Your task to perform on an android device: Search for seafood restaurants on Google Maps Image 0: 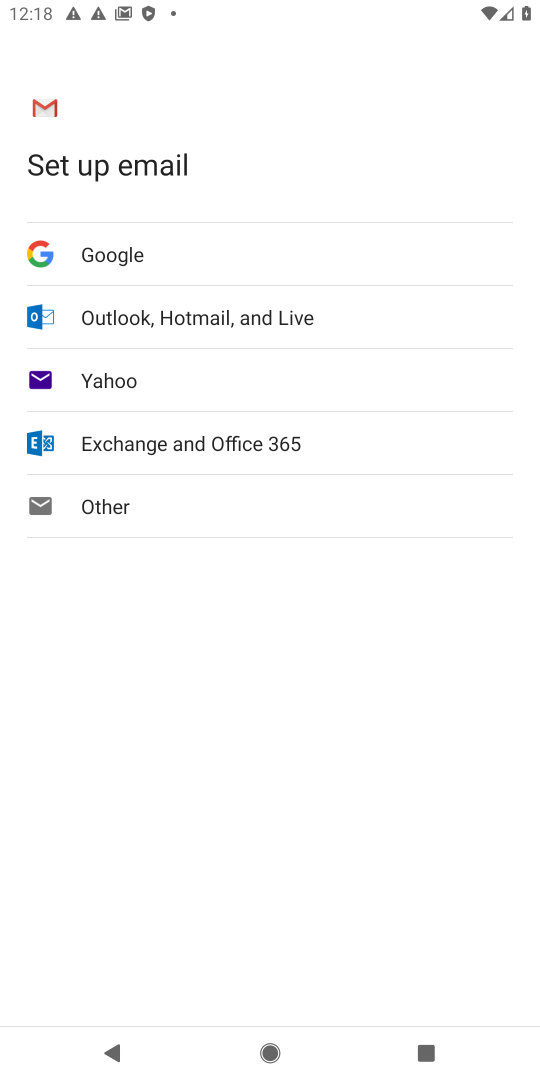
Step 0: press back button
Your task to perform on an android device: Search for seafood restaurants on Google Maps Image 1: 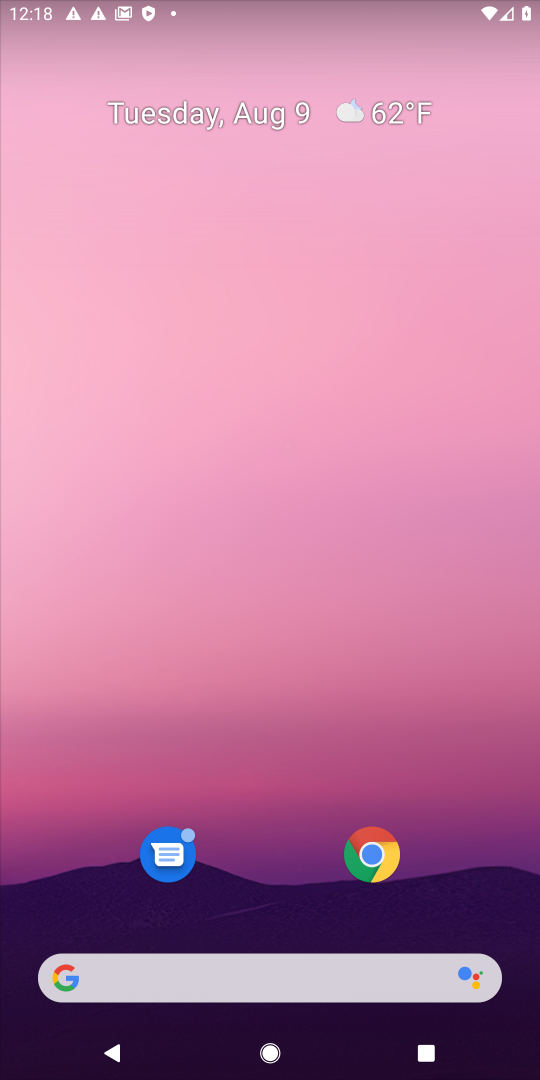
Step 1: drag from (266, 911) to (427, 2)
Your task to perform on an android device: Search for seafood restaurants on Google Maps Image 2: 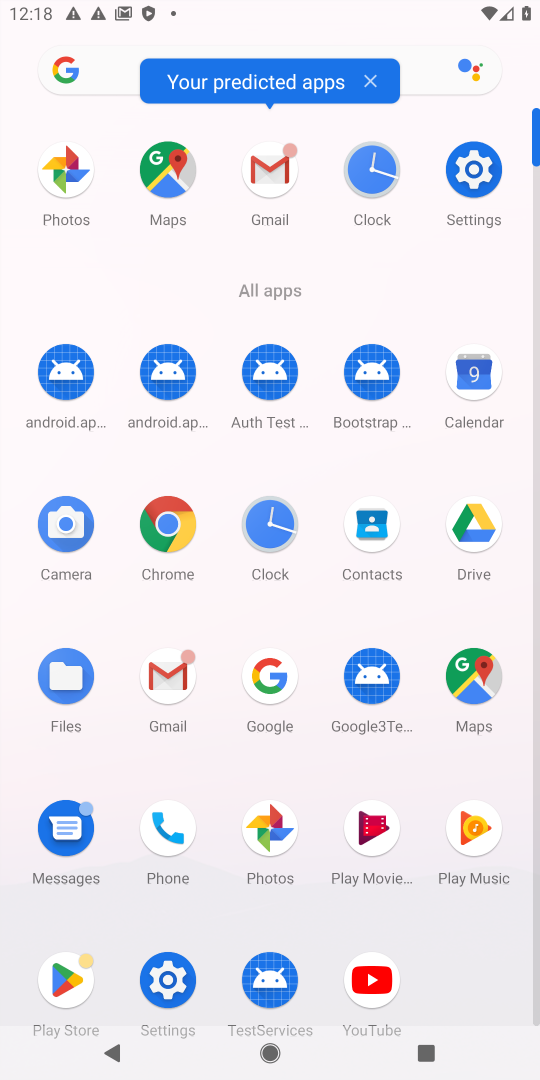
Step 2: click (167, 169)
Your task to perform on an android device: Search for seafood restaurants on Google Maps Image 3: 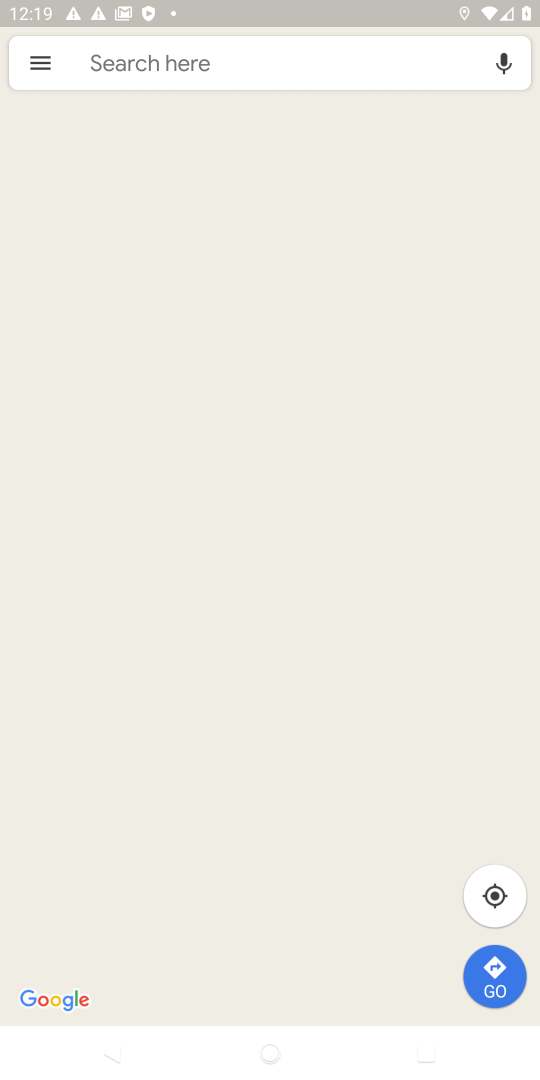
Step 3: click (205, 78)
Your task to perform on an android device: Search for seafood restaurants on Google Maps Image 4: 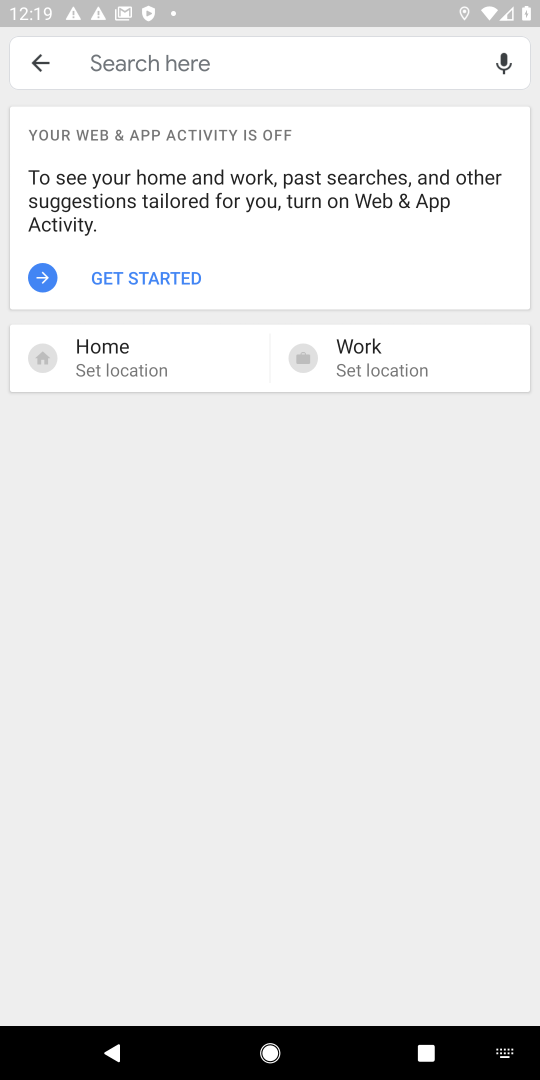
Step 4: click (214, 72)
Your task to perform on an android device: Search for seafood restaurants on Google Maps Image 5: 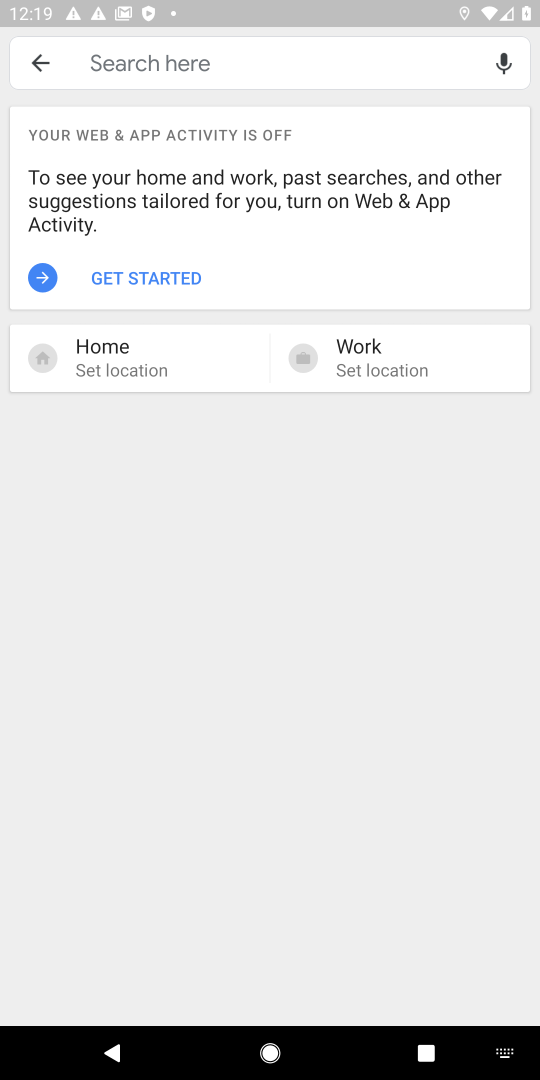
Step 5: click (214, 72)
Your task to perform on an android device: Search for seafood restaurants on Google Maps Image 6: 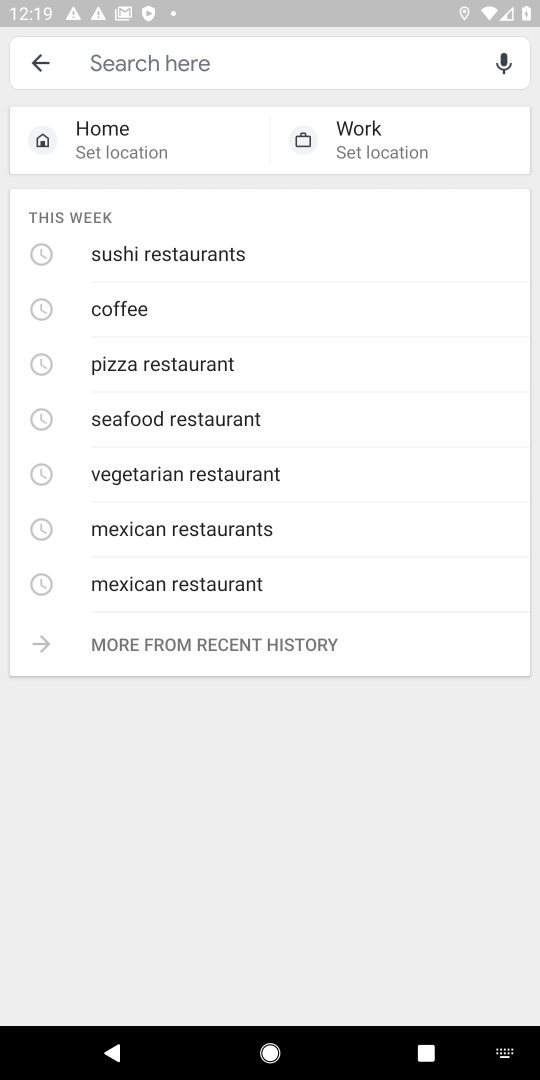
Step 6: type "seafood resta"
Your task to perform on an android device: Search for seafood restaurants on Google Maps Image 7: 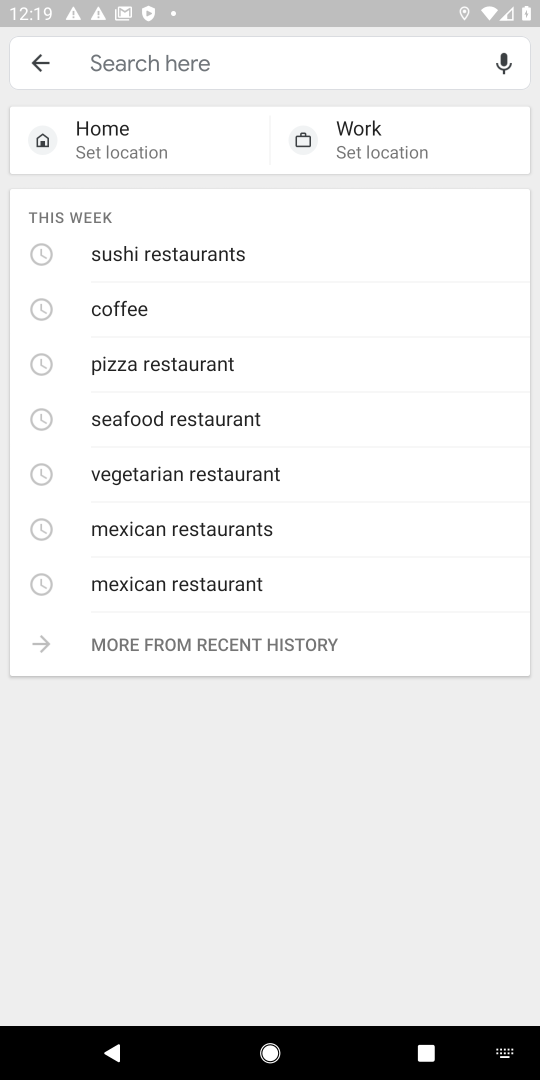
Step 7: click (223, 418)
Your task to perform on an android device: Search for seafood restaurants on Google Maps Image 8: 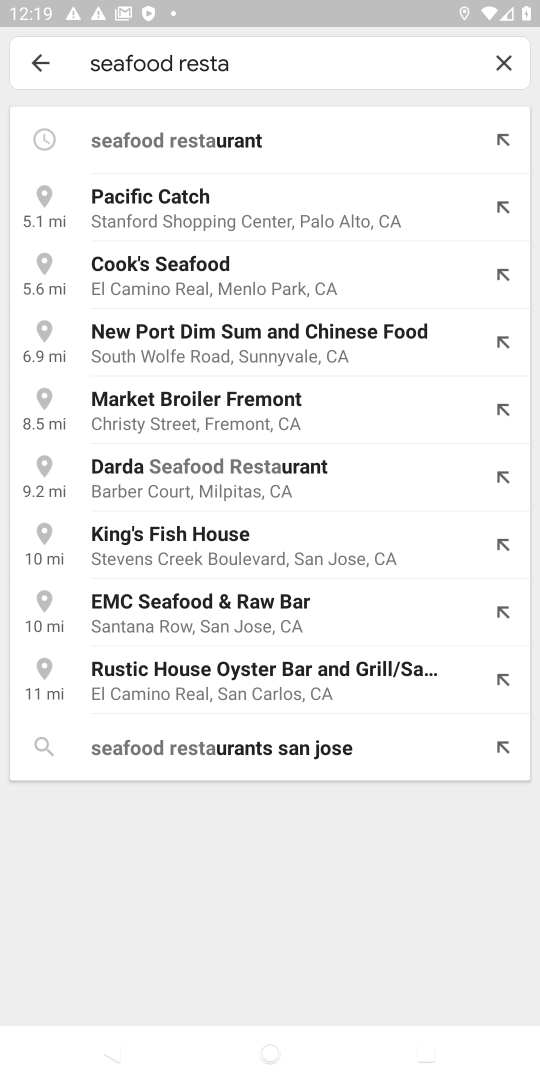
Step 8: click (173, 150)
Your task to perform on an android device: Search for seafood restaurants on Google Maps Image 9: 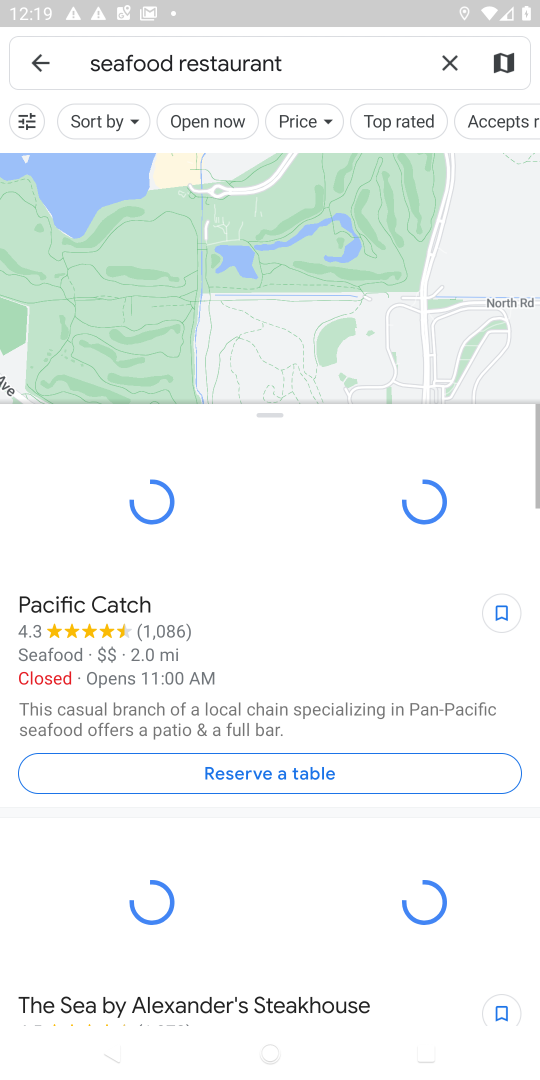
Step 9: task complete